Your task to perform on an android device: Open calendar and show me the first week of next month Image 0: 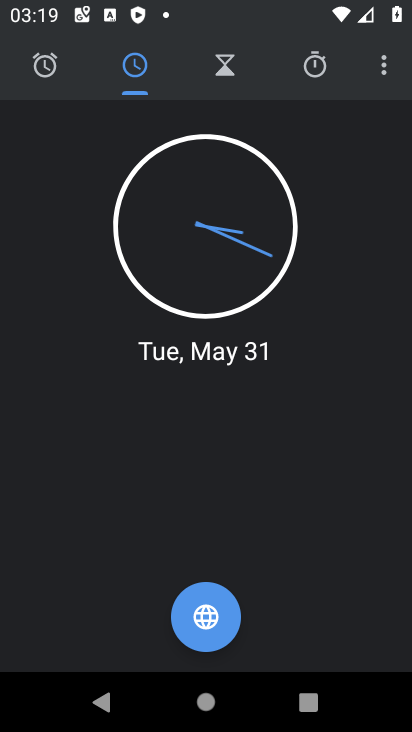
Step 0: press home button
Your task to perform on an android device: Open calendar and show me the first week of next month Image 1: 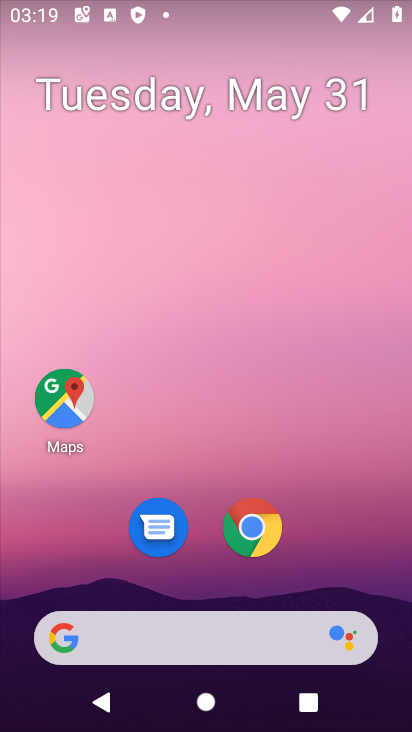
Step 1: drag from (399, 646) to (313, 74)
Your task to perform on an android device: Open calendar and show me the first week of next month Image 2: 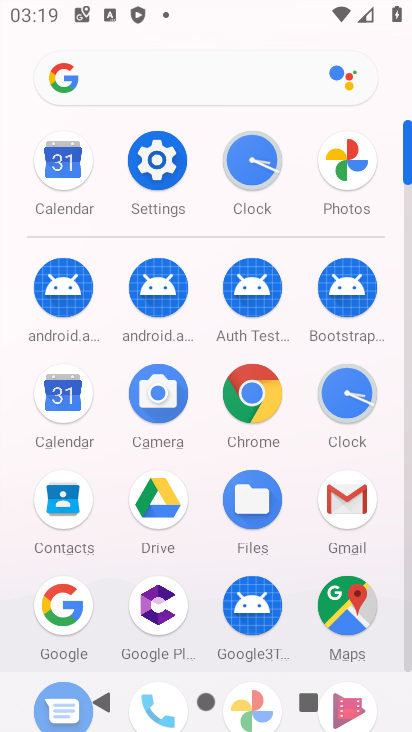
Step 2: click (408, 655)
Your task to perform on an android device: Open calendar and show me the first week of next month Image 3: 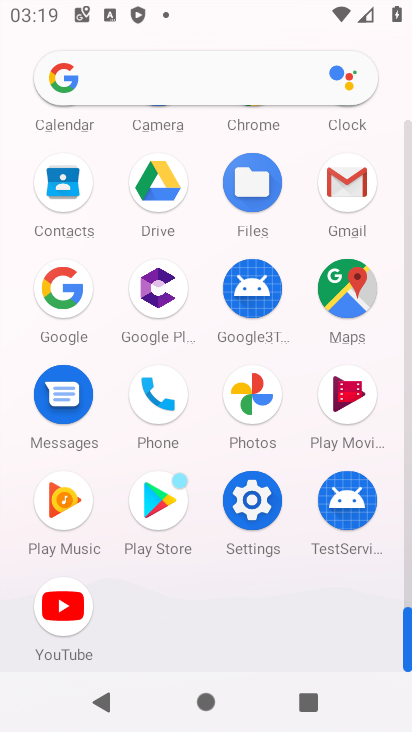
Step 3: click (407, 199)
Your task to perform on an android device: Open calendar and show me the first week of next month Image 4: 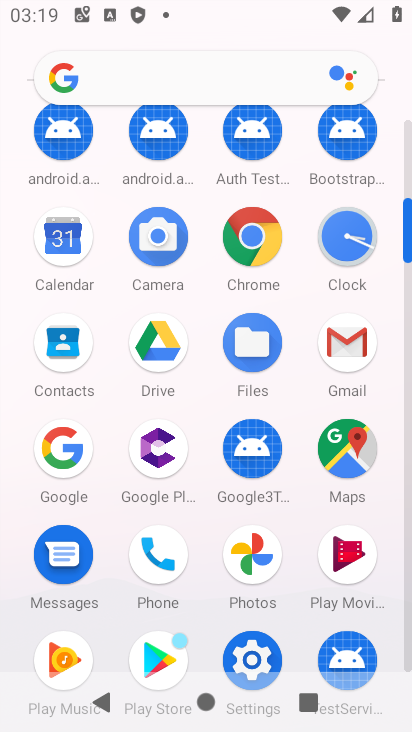
Step 4: click (65, 240)
Your task to perform on an android device: Open calendar and show me the first week of next month Image 5: 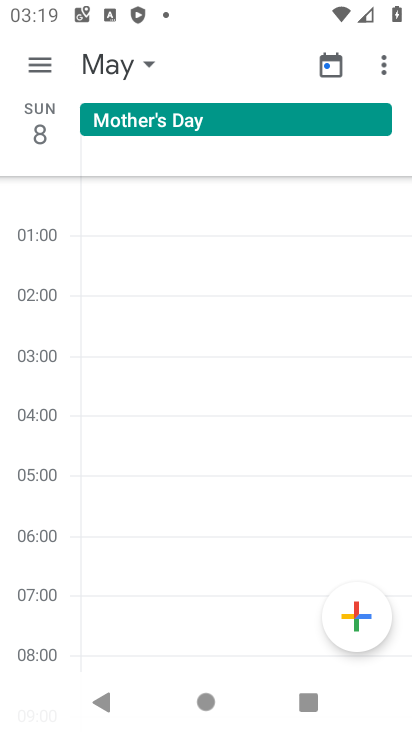
Step 5: click (41, 67)
Your task to perform on an android device: Open calendar and show me the first week of next month Image 6: 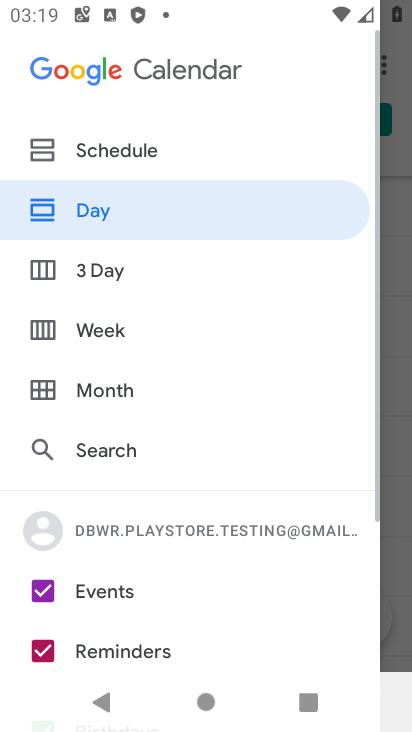
Step 6: click (98, 333)
Your task to perform on an android device: Open calendar and show me the first week of next month Image 7: 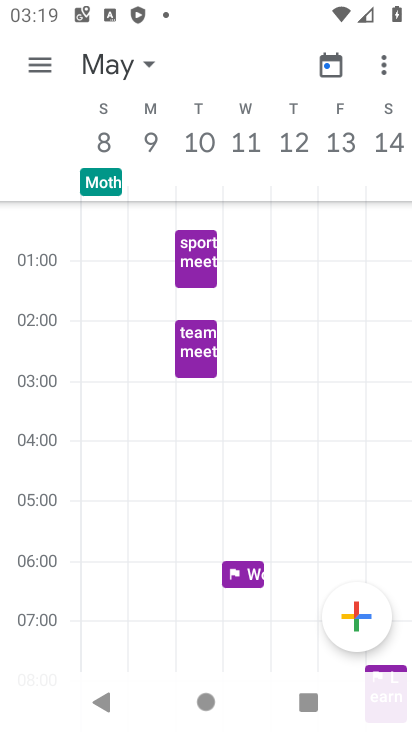
Step 7: click (154, 61)
Your task to perform on an android device: Open calendar and show me the first week of next month Image 8: 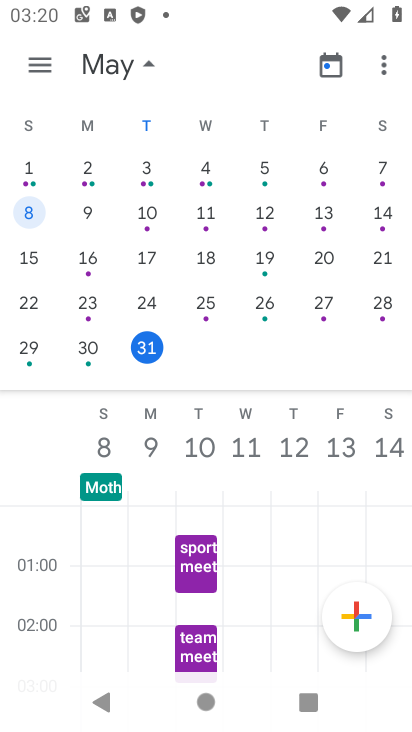
Step 8: drag from (382, 253) to (25, 269)
Your task to perform on an android device: Open calendar and show me the first week of next month Image 9: 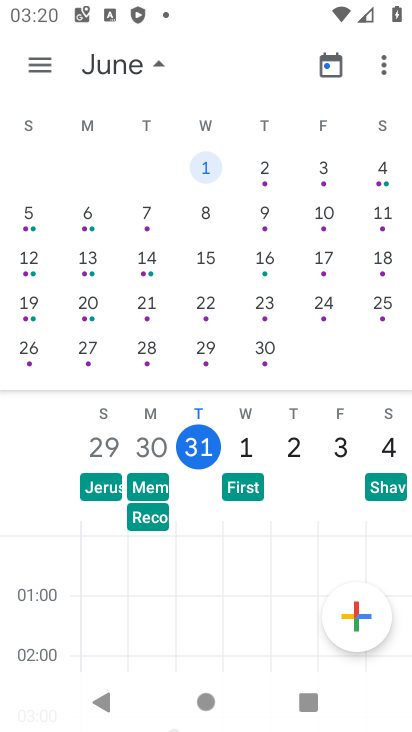
Step 9: click (22, 208)
Your task to perform on an android device: Open calendar and show me the first week of next month Image 10: 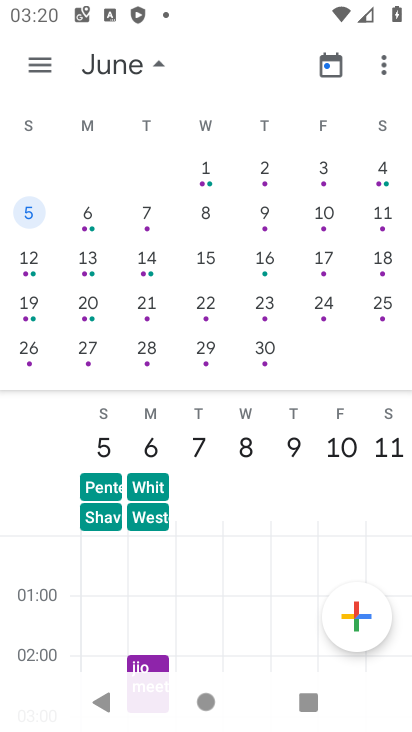
Step 10: task complete